Your task to perform on an android device: What's the latest news in space science? Image 0: 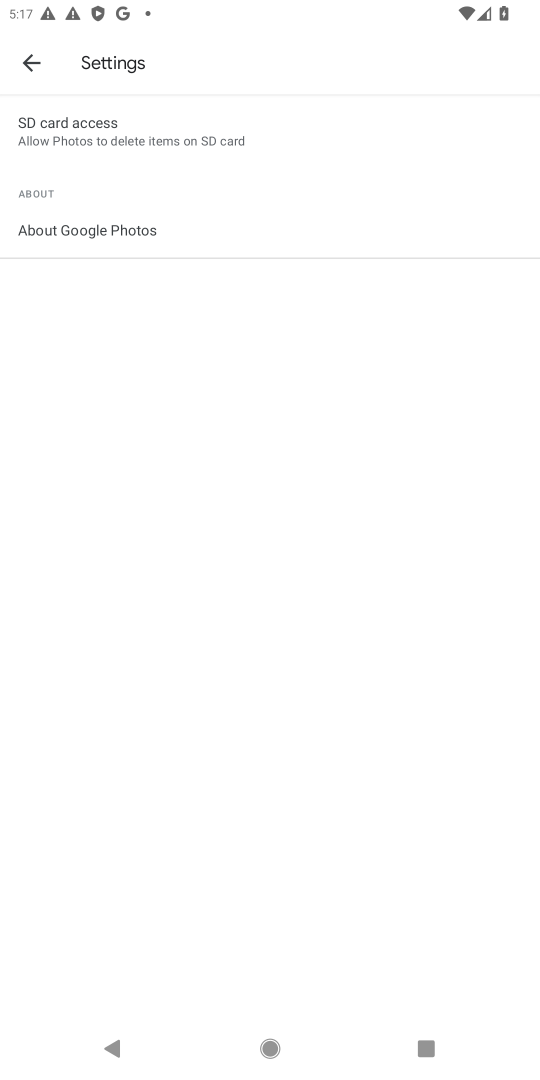
Step 0: press home button
Your task to perform on an android device: What's the latest news in space science? Image 1: 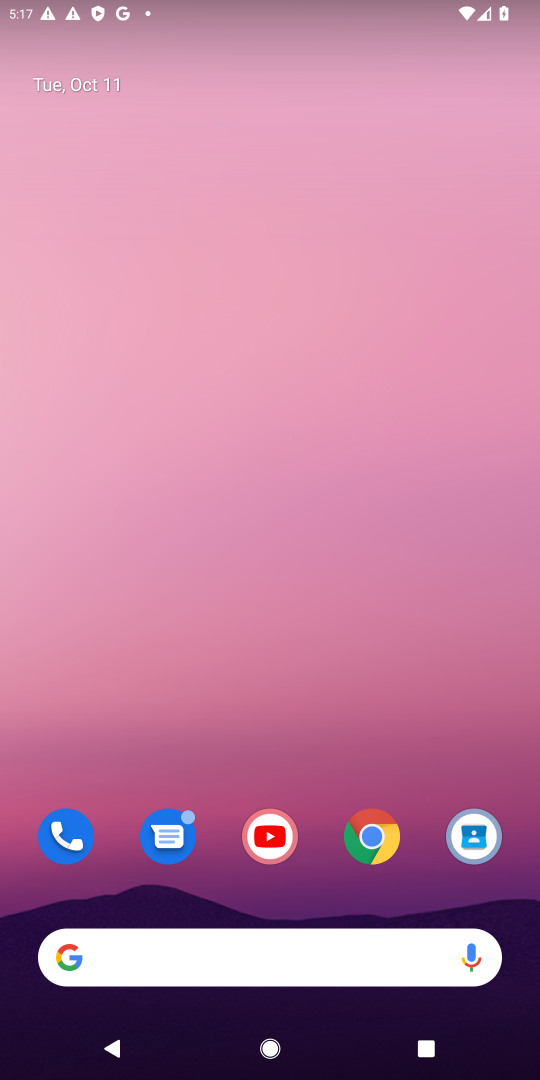
Step 1: click (376, 840)
Your task to perform on an android device: What's the latest news in space science? Image 2: 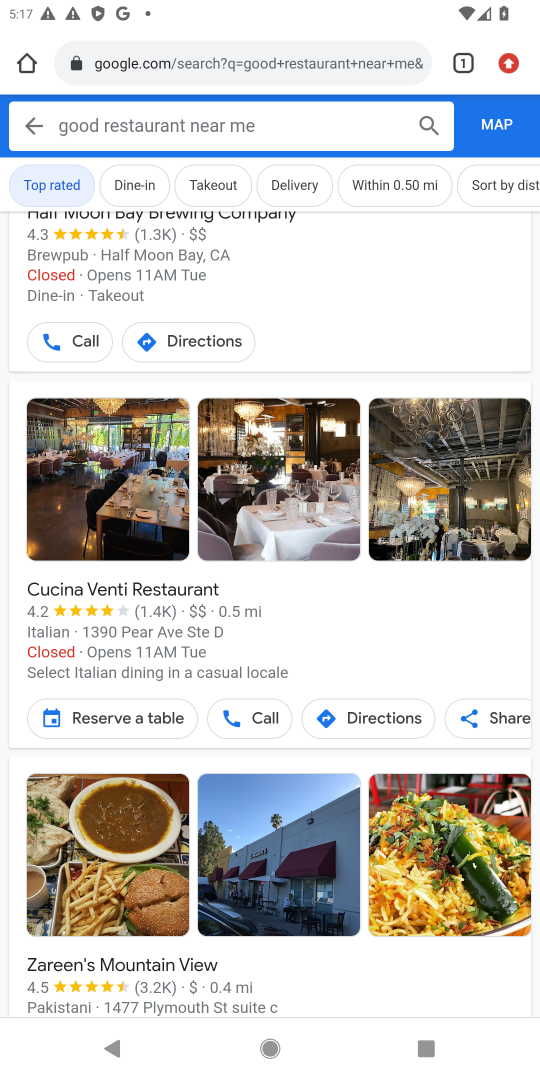
Step 2: click (282, 64)
Your task to perform on an android device: What's the latest news in space science? Image 3: 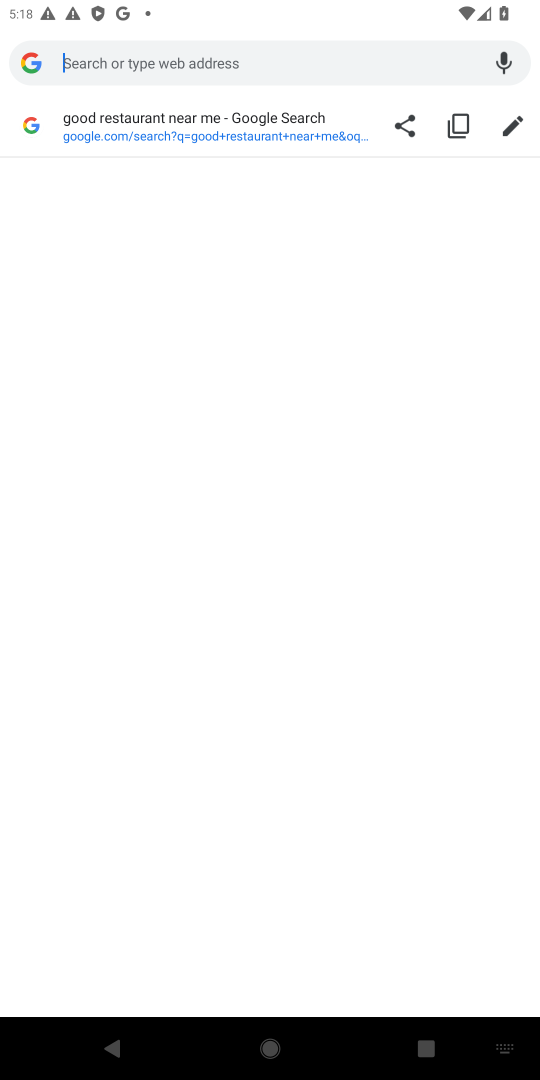
Step 3: type "latest news in space science"
Your task to perform on an android device: What's the latest news in space science? Image 4: 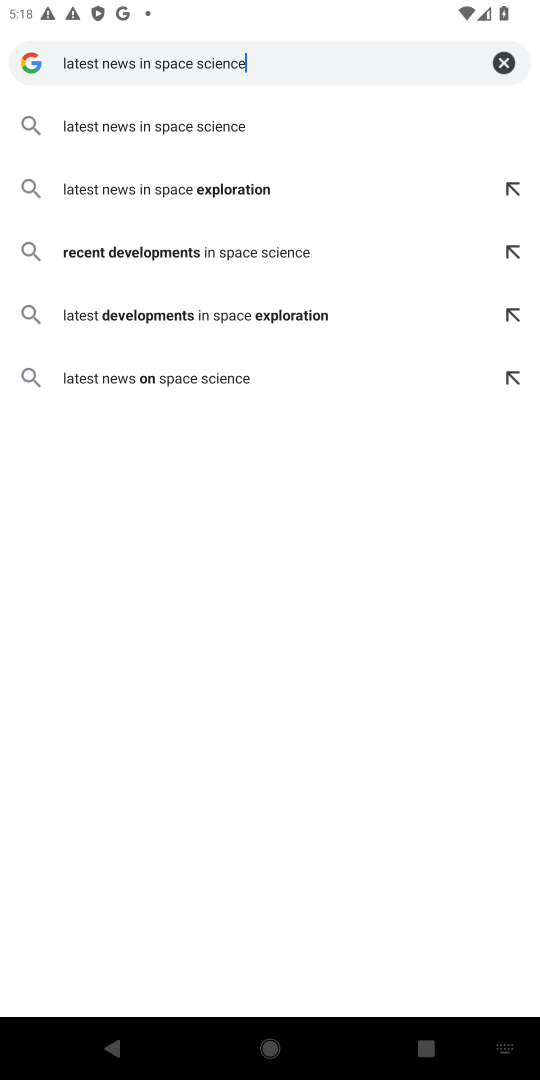
Step 4: click (132, 126)
Your task to perform on an android device: What's the latest news in space science? Image 5: 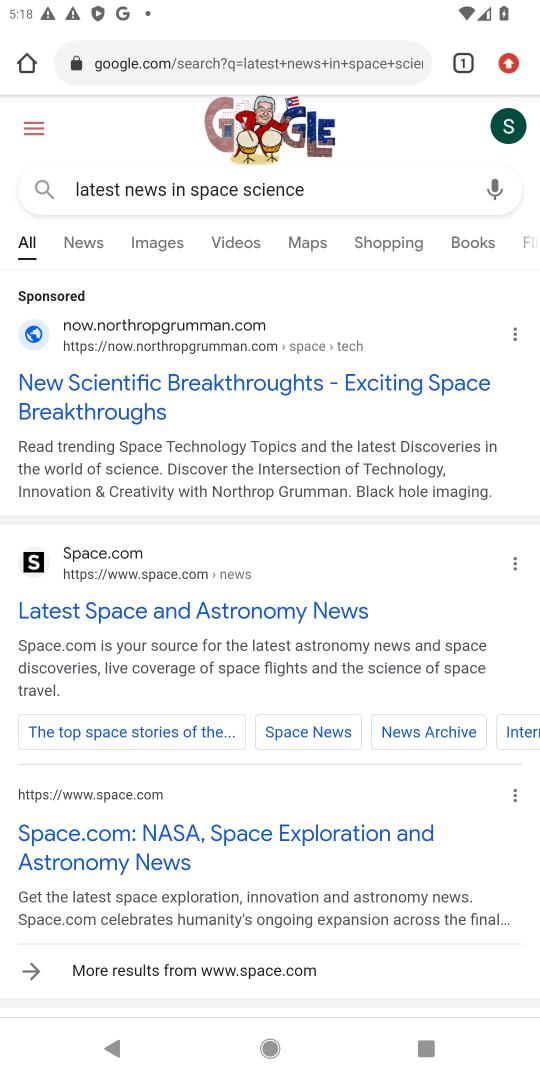
Step 5: click (87, 238)
Your task to perform on an android device: What's the latest news in space science? Image 6: 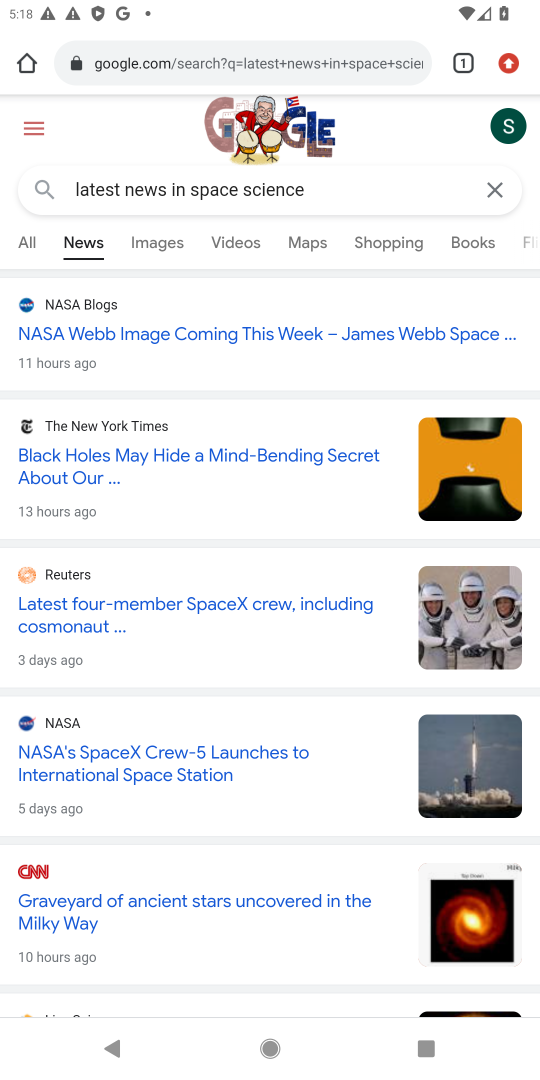
Step 6: task complete